Your task to perform on an android device: Search for vegetarian restaurants on Maps Image 0: 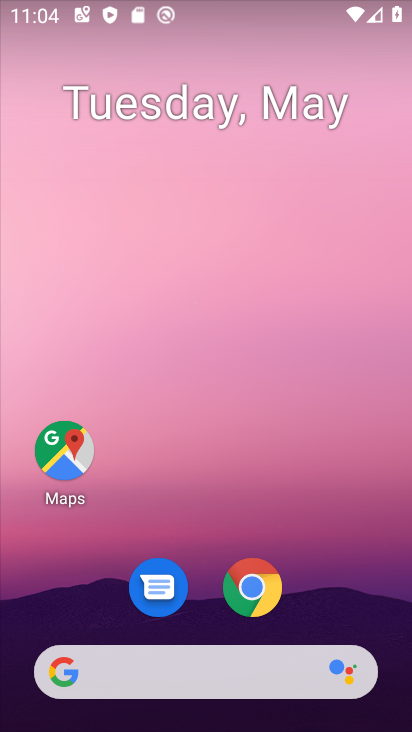
Step 0: drag from (336, 592) to (255, 62)
Your task to perform on an android device: Search for vegetarian restaurants on Maps Image 1: 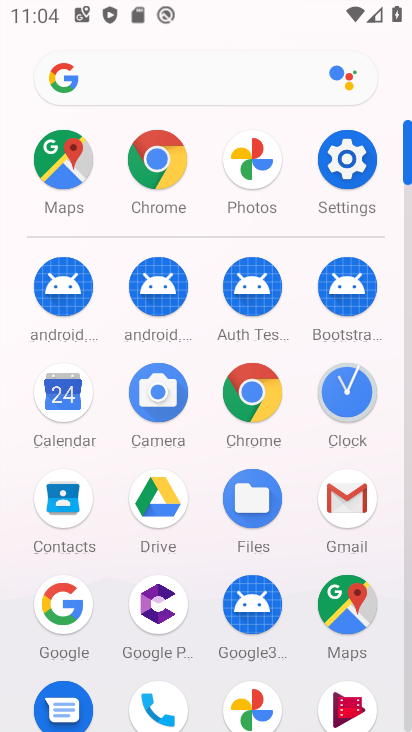
Step 1: drag from (1, 588) to (20, 270)
Your task to perform on an android device: Search for vegetarian restaurants on Maps Image 2: 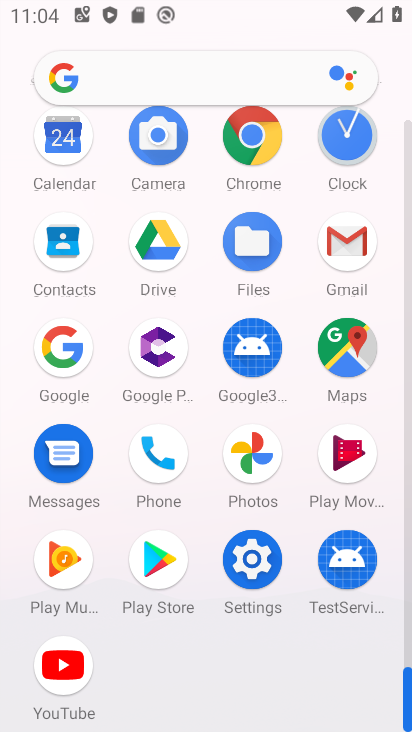
Step 2: click (349, 346)
Your task to perform on an android device: Search for vegetarian restaurants on Maps Image 3: 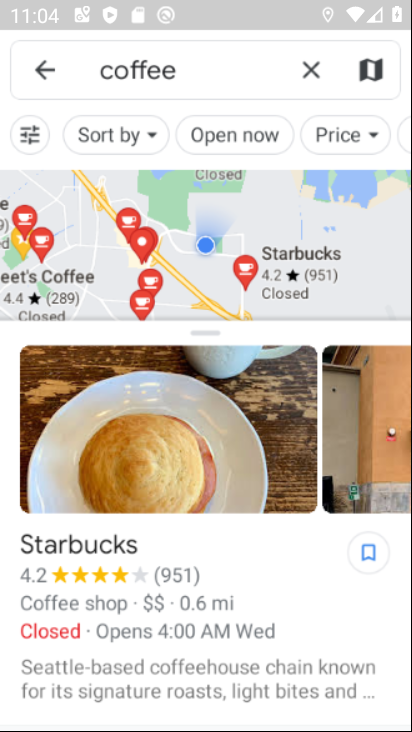
Step 3: click (52, 72)
Your task to perform on an android device: Search for vegetarian restaurants on Maps Image 4: 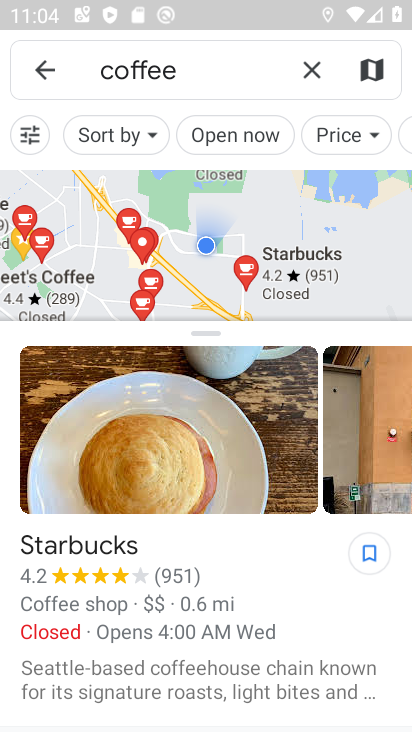
Step 4: click (40, 64)
Your task to perform on an android device: Search for vegetarian restaurants on Maps Image 5: 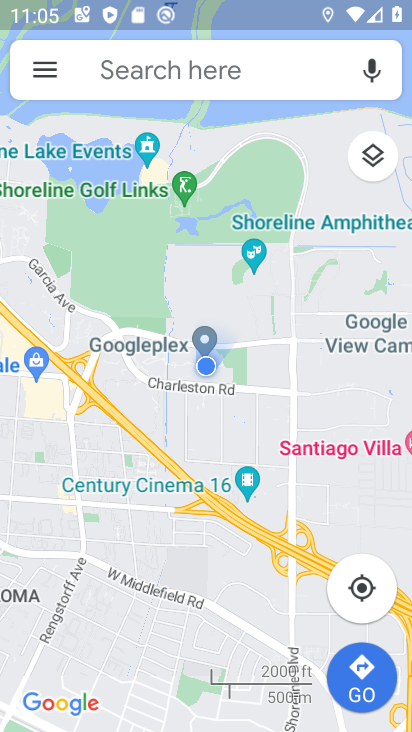
Step 5: click (290, 68)
Your task to perform on an android device: Search for vegetarian restaurants on Maps Image 6: 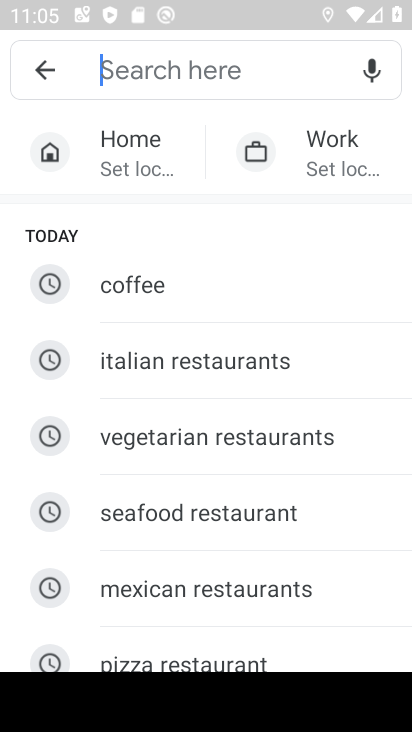
Step 6: click (215, 425)
Your task to perform on an android device: Search for vegetarian restaurants on Maps Image 7: 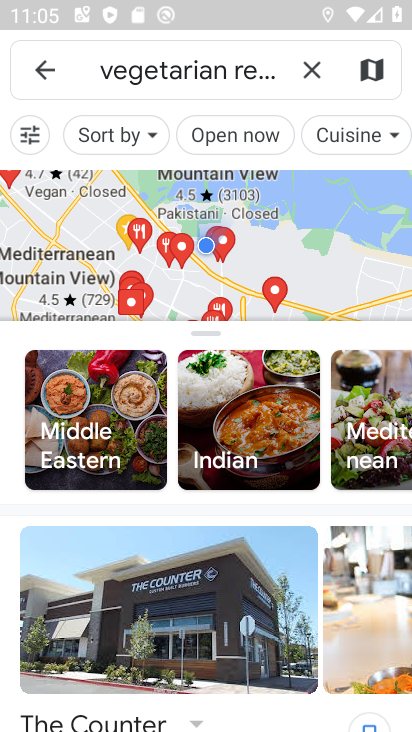
Step 7: task complete